Your task to perform on an android device: Open the calendar and show me this week's events? Image 0: 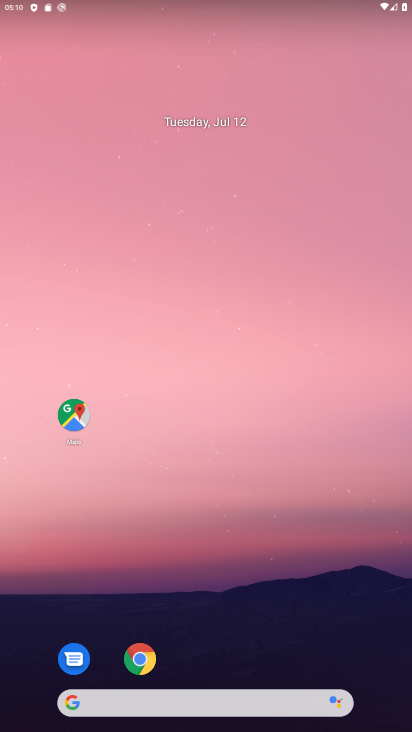
Step 0: drag from (378, 650) to (344, 209)
Your task to perform on an android device: Open the calendar and show me this week's events? Image 1: 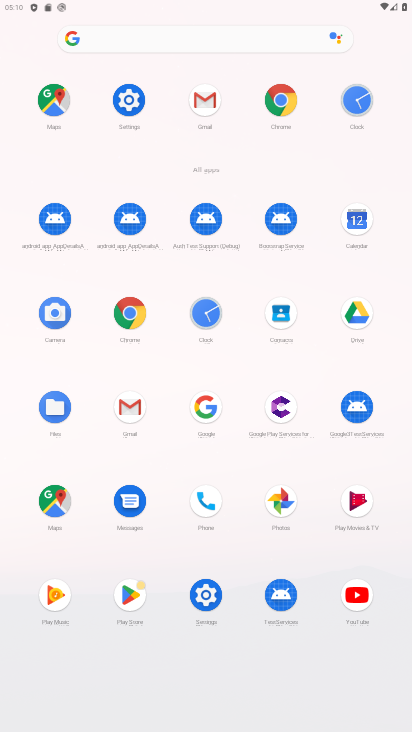
Step 1: click (356, 216)
Your task to perform on an android device: Open the calendar and show me this week's events? Image 2: 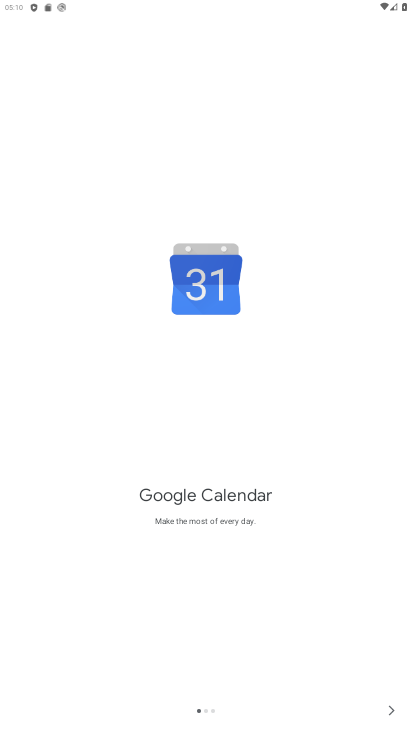
Step 2: click (393, 709)
Your task to perform on an android device: Open the calendar and show me this week's events? Image 3: 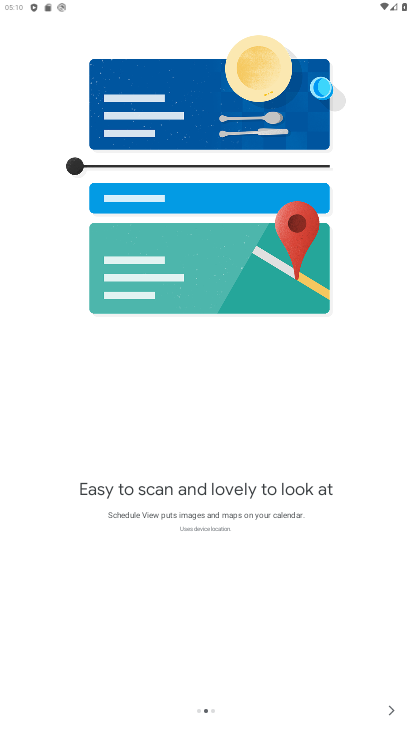
Step 3: click (393, 709)
Your task to perform on an android device: Open the calendar and show me this week's events? Image 4: 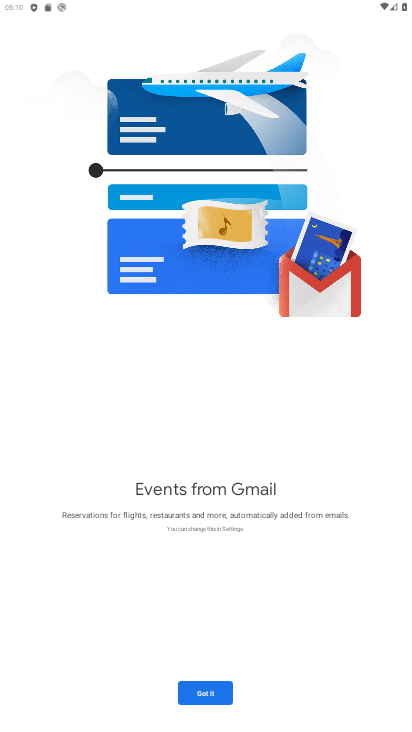
Step 4: click (195, 687)
Your task to perform on an android device: Open the calendar and show me this week's events? Image 5: 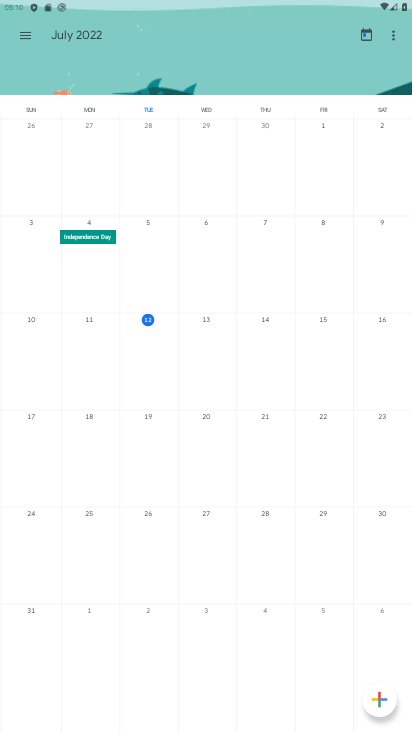
Step 5: click (24, 38)
Your task to perform on an android device: Open the calendar and show me this week's events? Image 6: 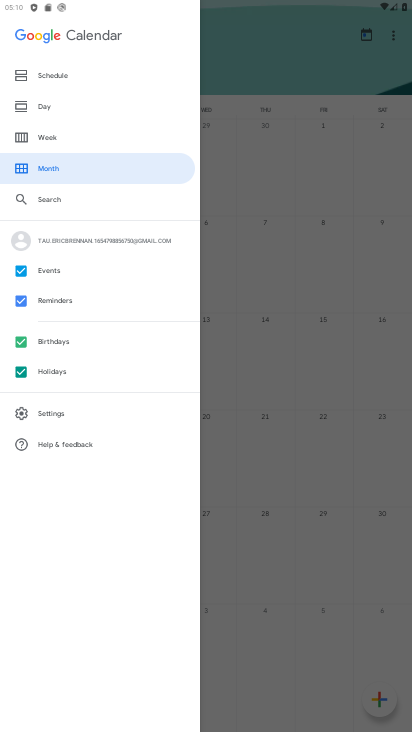
Step 6: click (45, 140)
Your task to perform on an android device: Open the calendar and show me this week's events? Image 7: 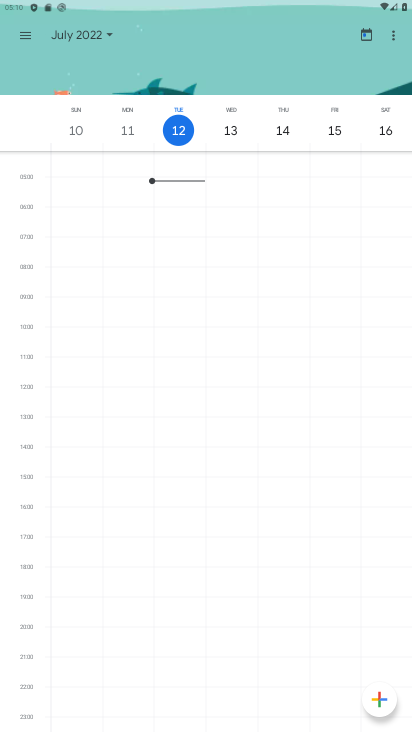
Step 7: task complete